Your task to perform on an android device: Open Google Chrome and open the bookmarks view Image 0: 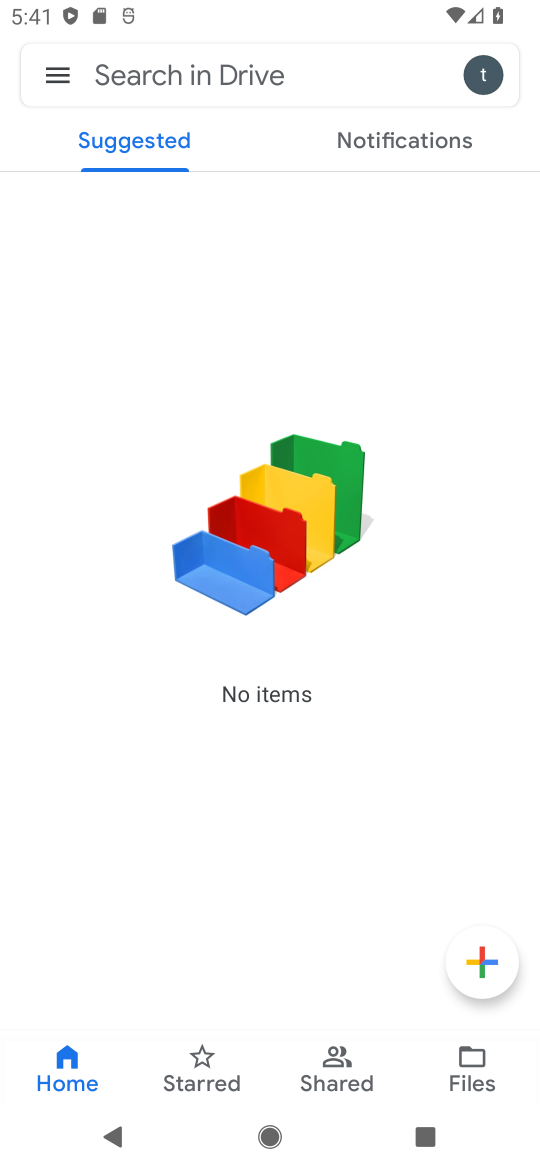
Step 0: press home button
Your task to perform on an android device: Open Google Chrome and open the bookmarks view Image 1: 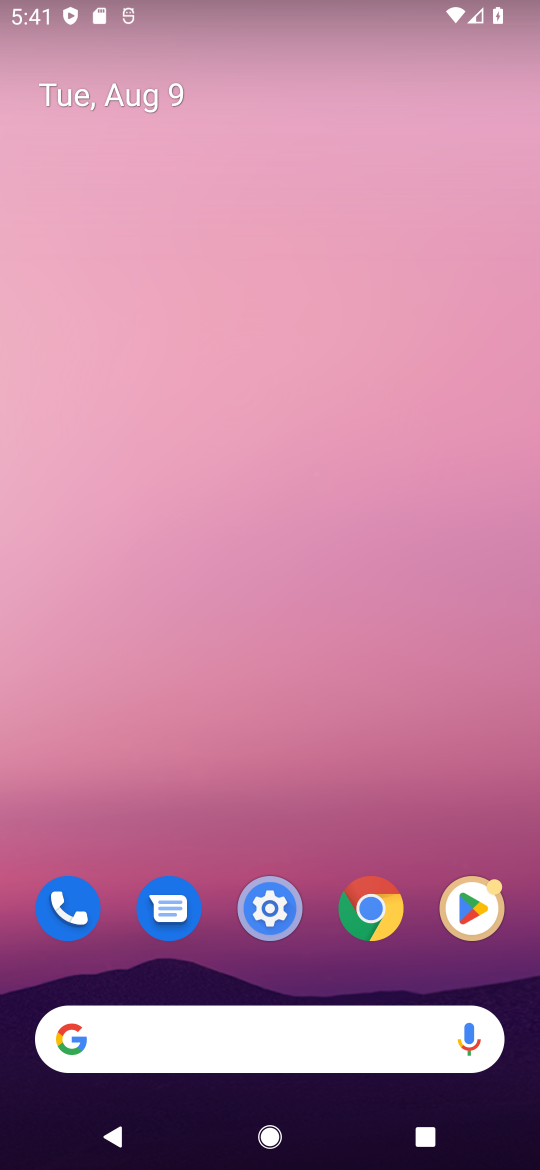
Step 1: click (369, 902)
Your task to perform on an android device: Open Google Chrome and open the bookmarks view Image 2: 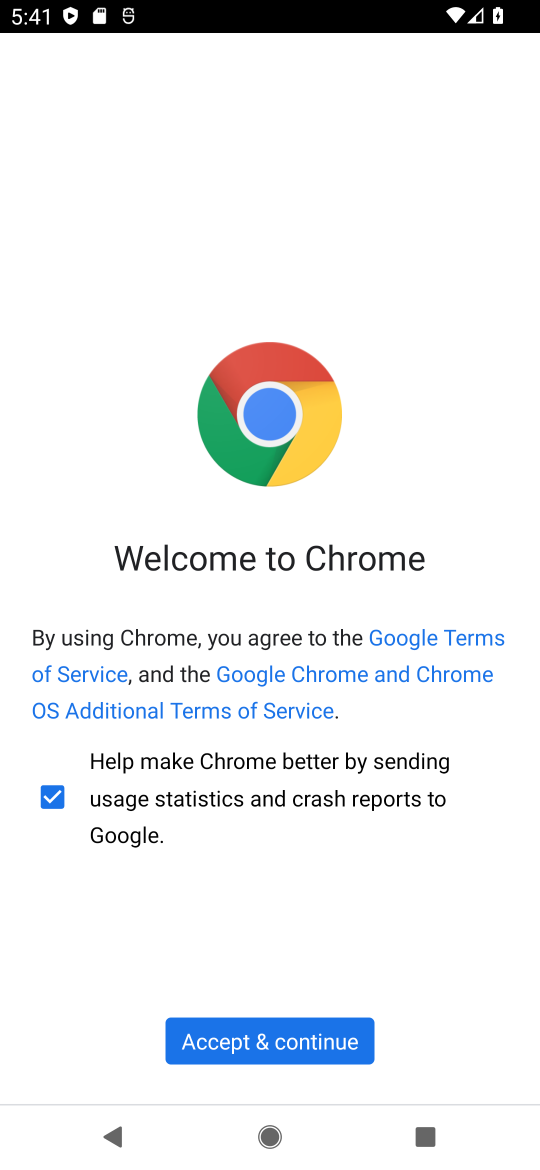
Step 2: click (313, 1032)
Your task to perform on an android device: Open Google Chrome and open the bookmarks view Image 3: 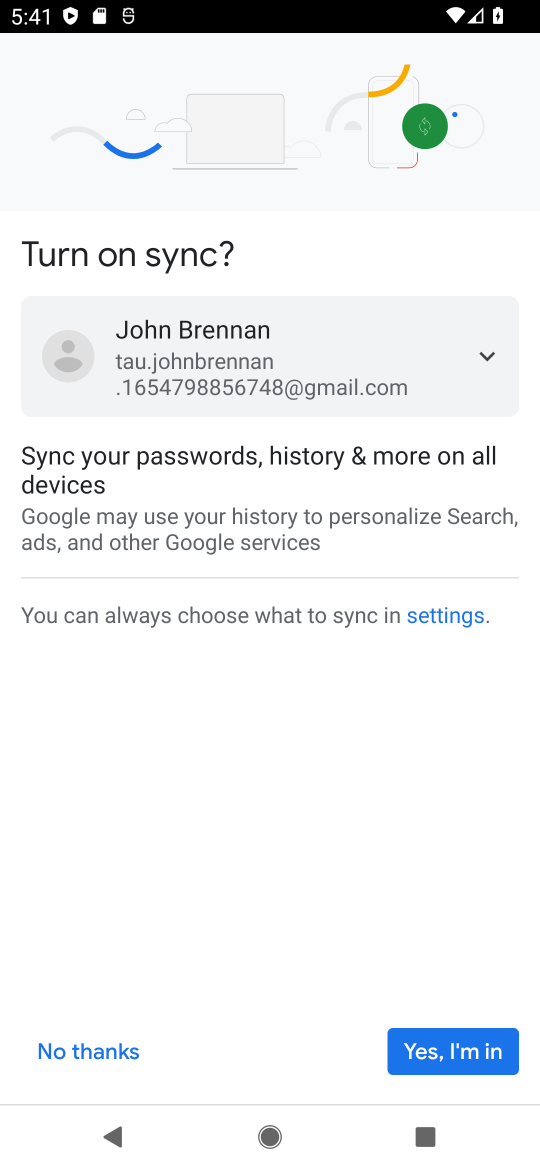
Step 3: click (434, 1044)
Your task to perform on an android device: Open Google Chrome and open the bookmarks view Image 4: 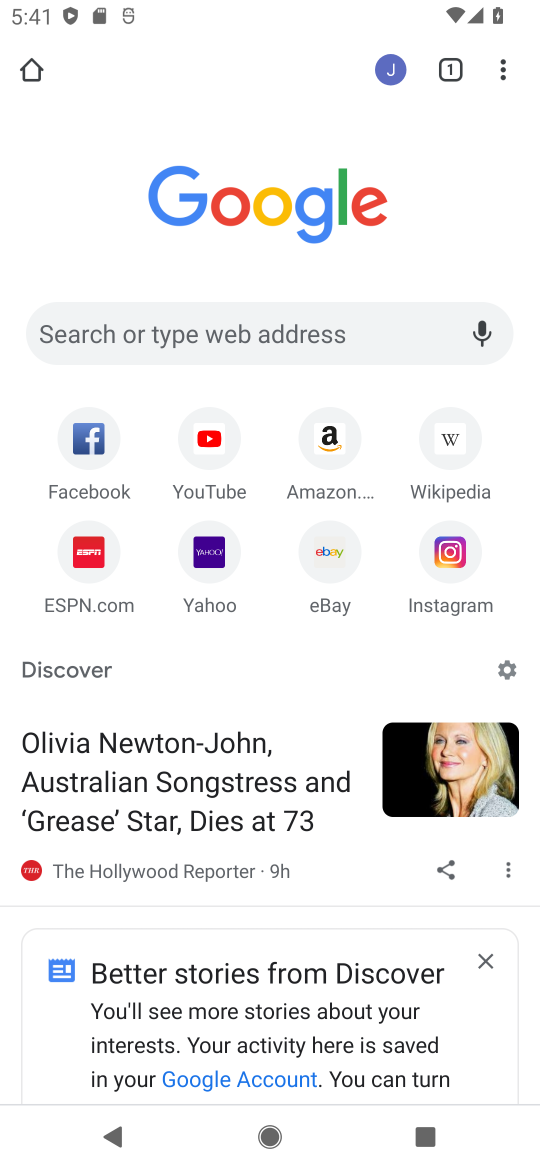
Step 4: click (499, 63)
Your task to perform on an android device: Open Google Chrome and open the bookmarks view Image 5: 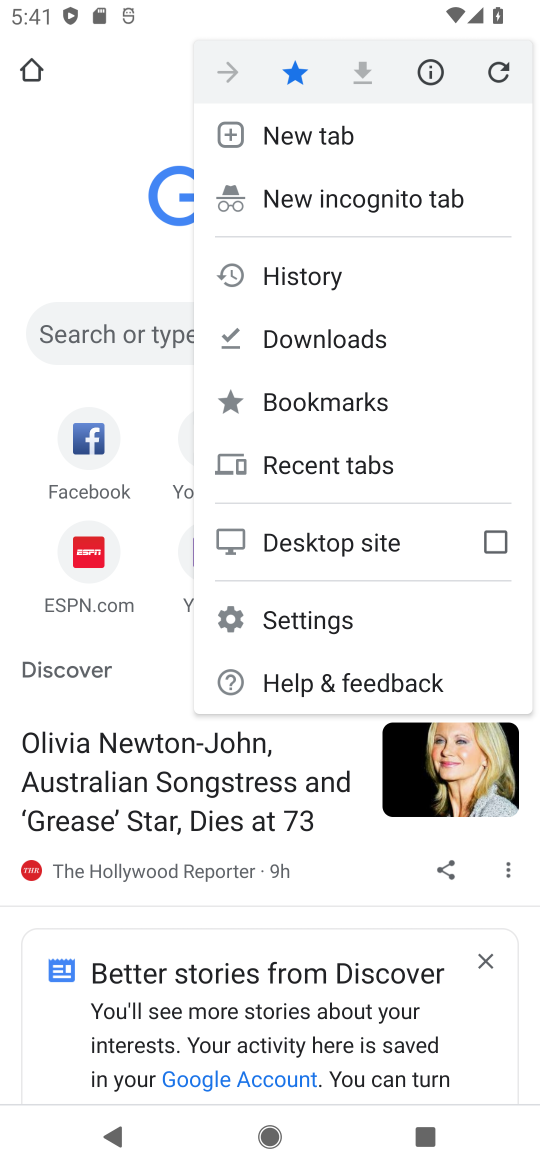
Step 5: click (357, 393)
Your task to perform on an android device: Open Google Chrome and open the bookmarks view Image 6: 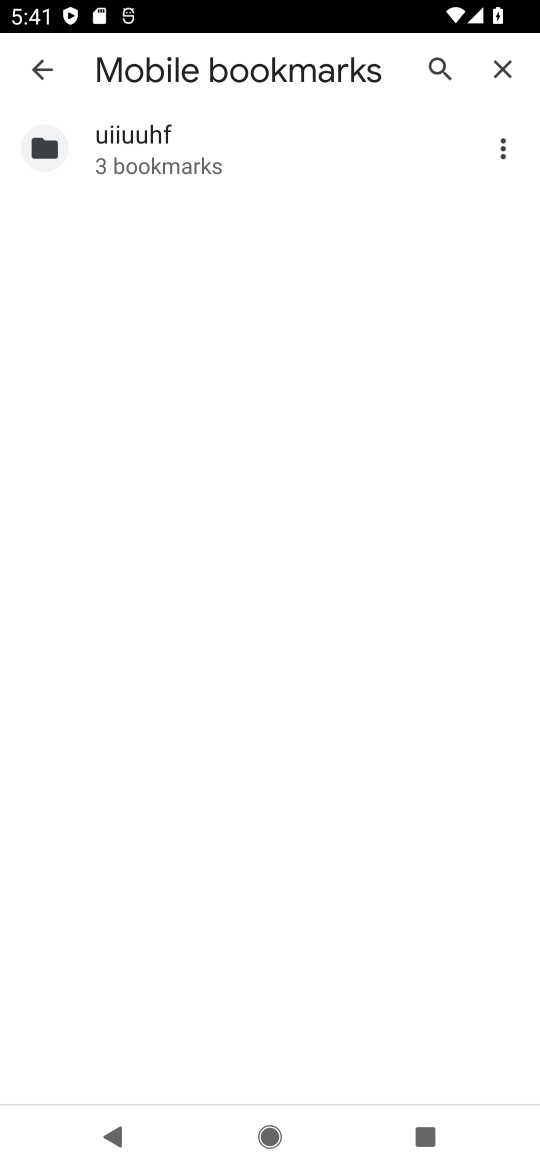
Step 6: click (214, 158)
Your task to perform on an android device: Open Google Chrome and open the bookmarks view Image 7: 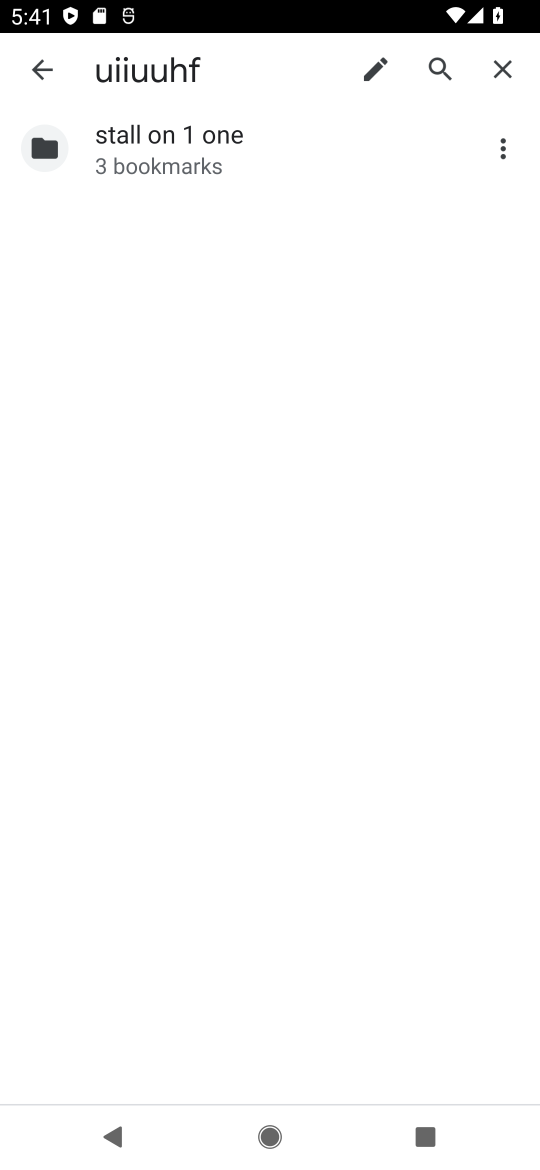
Step 7: click (214, 158)
Your task to perform on an android device: Open Google Chrome and open the bookmarks view Image 8: 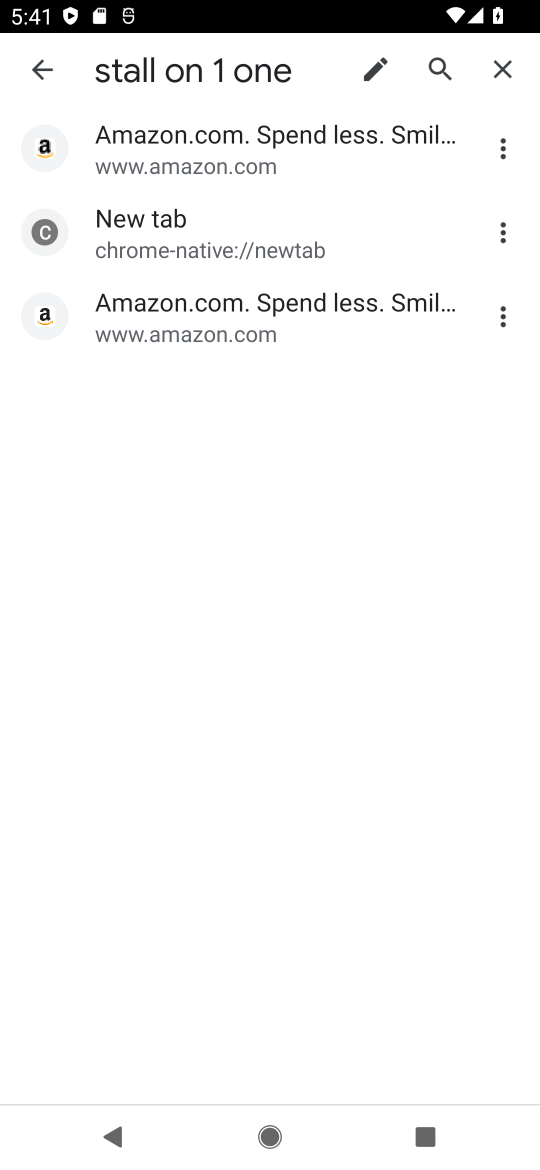
Step 8: task complete